Your task to perform on an android device: toggle pop-ups in chrome Image 0: 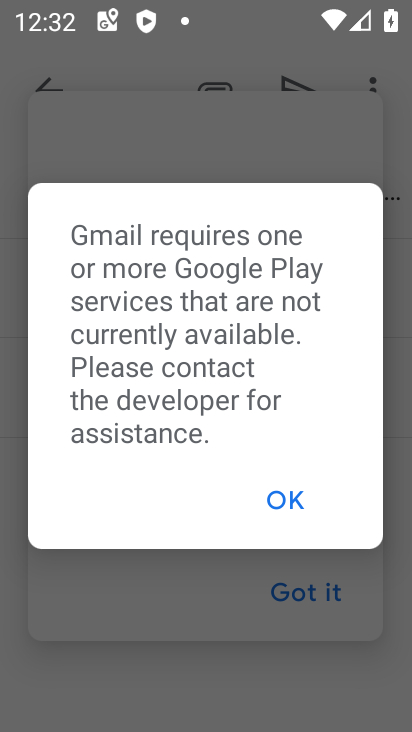
Step 0: press home button
Your task to perform on an android device: toggle pop-ups in chrome Image 1: 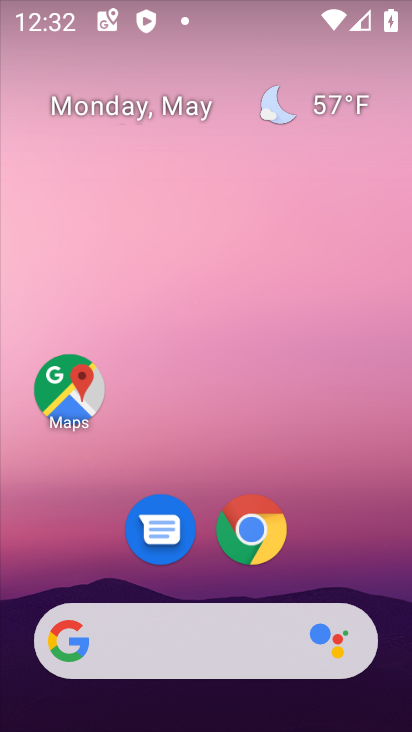
Step 1: click (253, 526)
Your task to perform on an android device: toggle pop-ups in chrome Image 2: 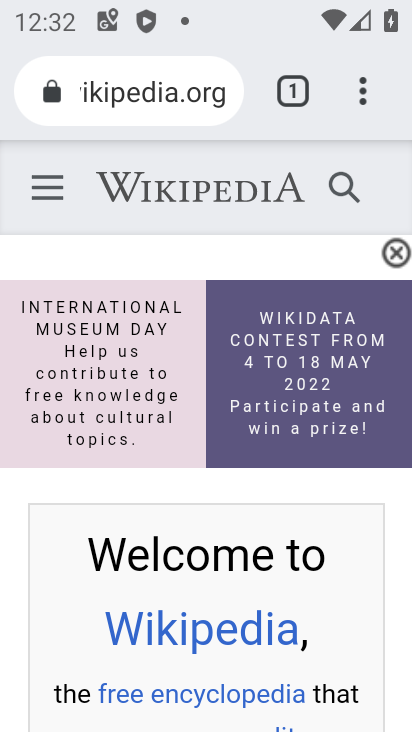
Step 2: click (365, 91)
Your task to perform on an android device: toggle pop-ups in chrome Image 3: 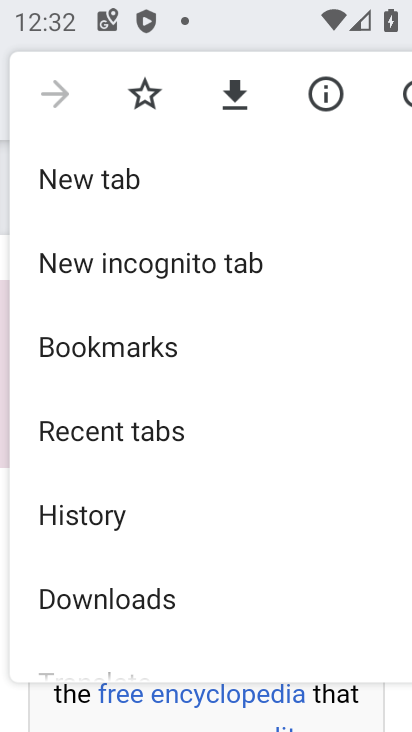
Step 3: drag from (178, 549) to (237, 442)
Your task to perform on an android device: toggle pop-ups in chrome Image 4: 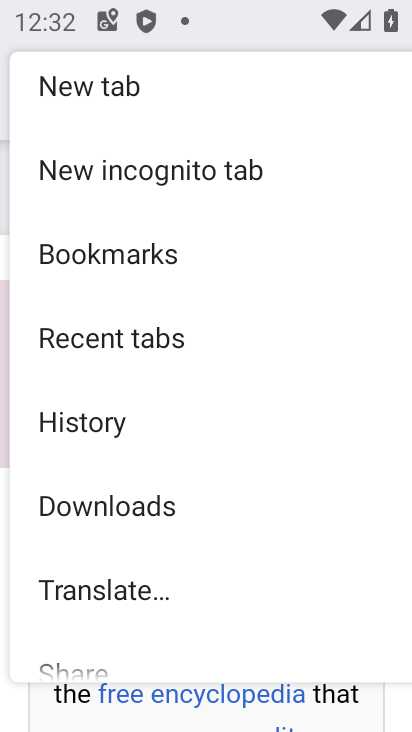
Step 4: drag from (222, 536) to (238, 422)
Your task to perform on an android device: toggle pop-ups in chrome Image 5: 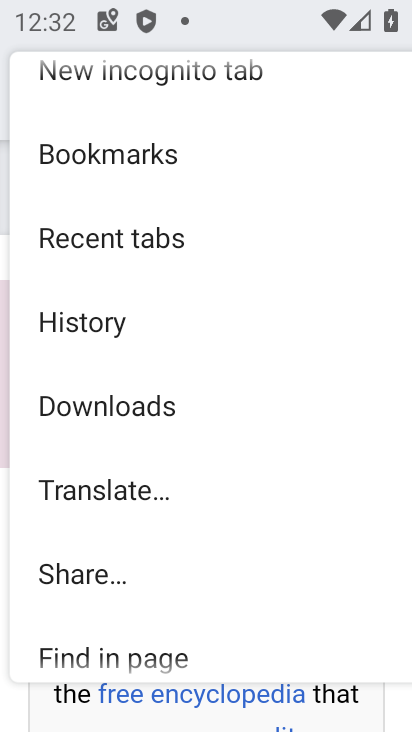
Step 5: drag from (197, 524) to (233, 426)
Your task to perform on an android device: toggle pop-ups in chrome Image 6: 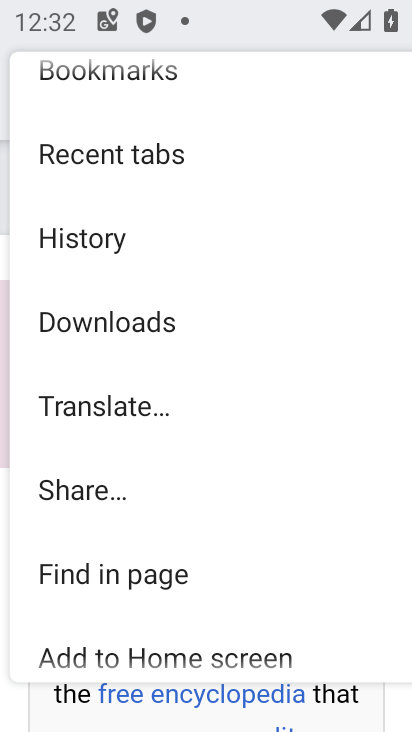
Step 6: drag from (198, 516) to (227, 382)
Your task to perform on an android device: toggle pop-ups in chrome Image 7: 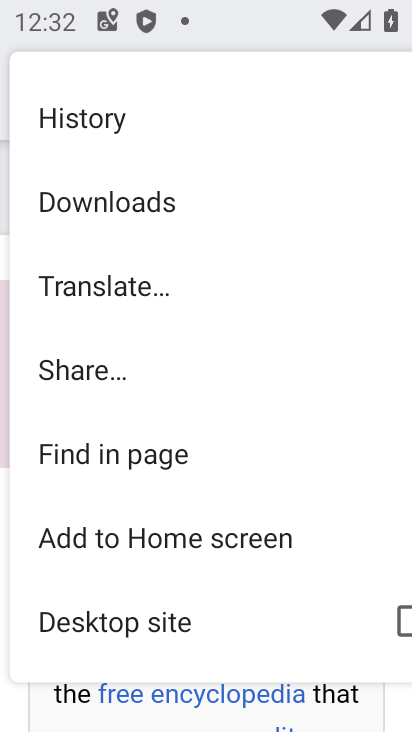
Step 7: drag from (166, 569) to (205, 435)
Your task to perform on an android device: toggle pop-ups in chrome Image 8: 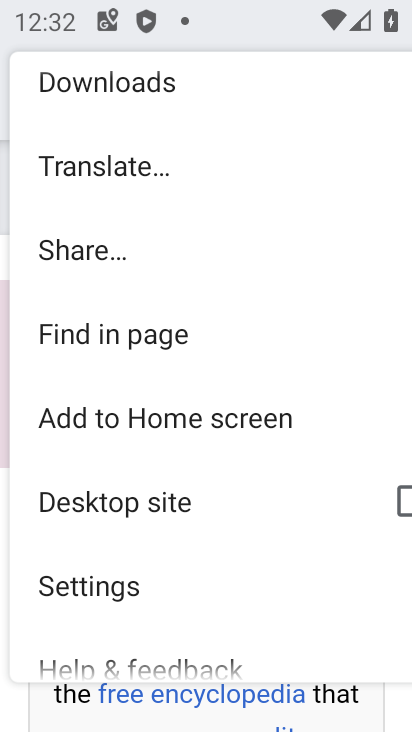
Step 8: drag from (152, 544) to (198, 475)
Your task to perform on an android device: toggle pop-ups in chrome Image 9: 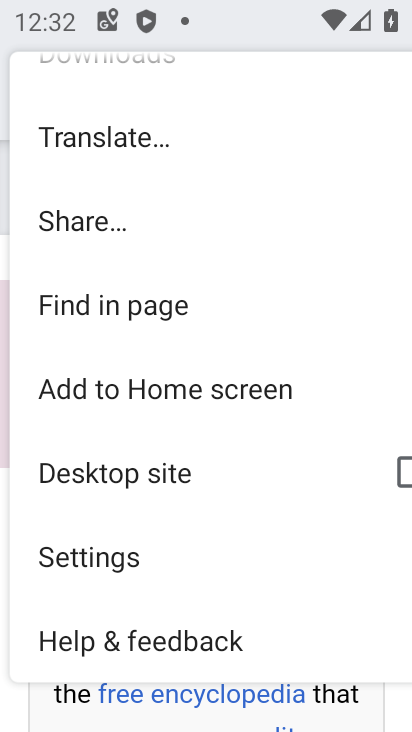
Step 9: click (100, 550)
Your task to perform on an android device: toggle pop-ups in chrome Image 10: 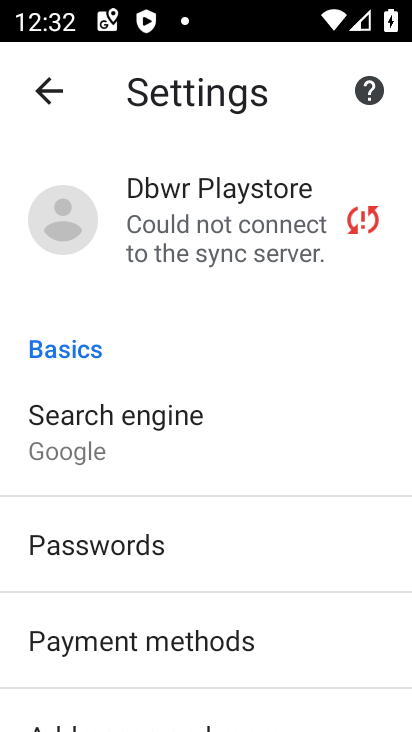
Step 10: drag from (104, 588) to (196, 477)
Your task to perform on an android device: toggle pop-ups in chrome Image 11: 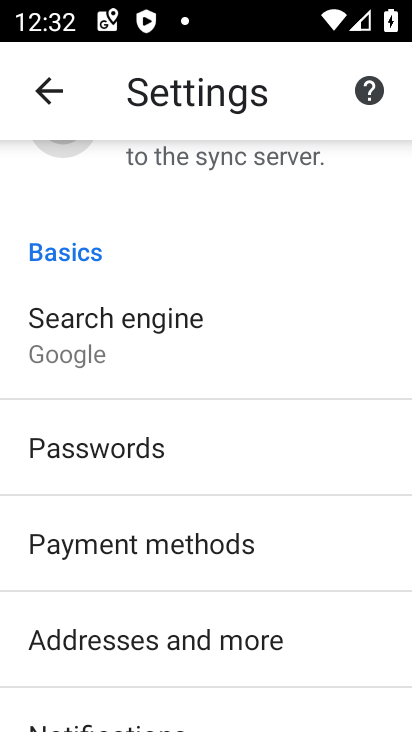
Step 11: drag from (154, 579) to (238, 465)
Your task to perform on an android device: toggle pop-ups in chrome Image 12: 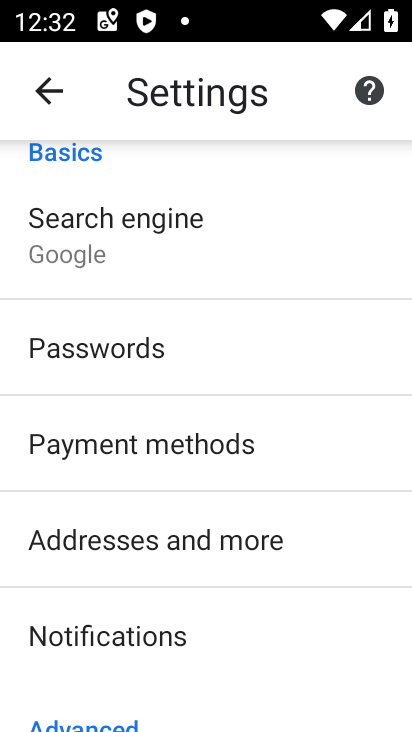
Step 12: drag from (196, 510) to (272, 403)
Your task to perform on an android device: toggle pop-ups in chrome Image 13: 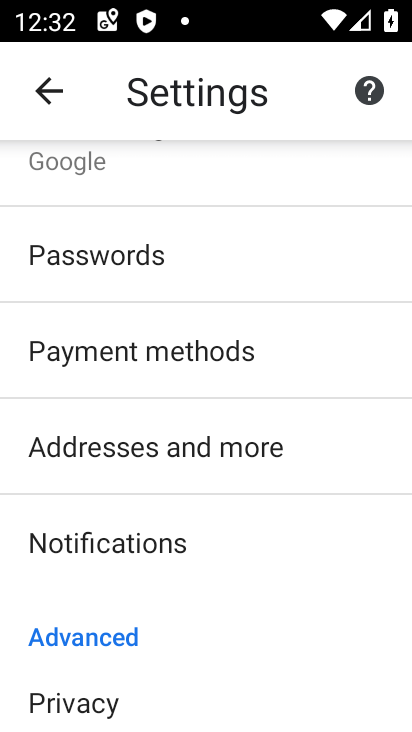
Step 13: drag from (142, 566) to (230, 459)
Your task to perform on an android device: toggle pop-ups in chrome Image 14: 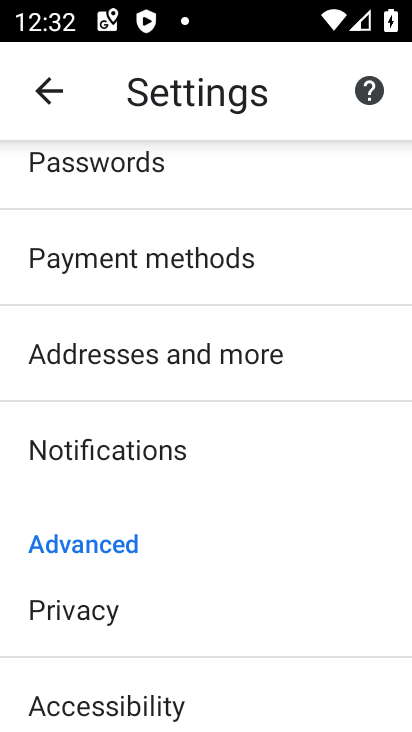
Step 14: drag from (192, 559) to (260, 446)
Your task to perform on an android device: toggle pop-ups in chrome Image 15: 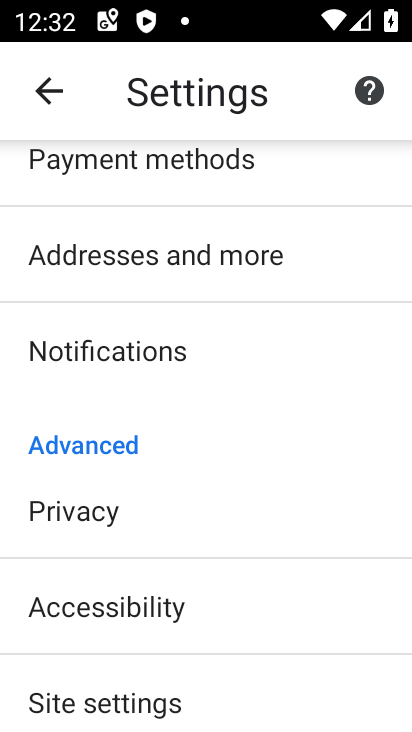
Step 15: drag from (208, 599) to (261, 513)
Your task to perform on an android device: toggle pop-ups in chrome Image 16: 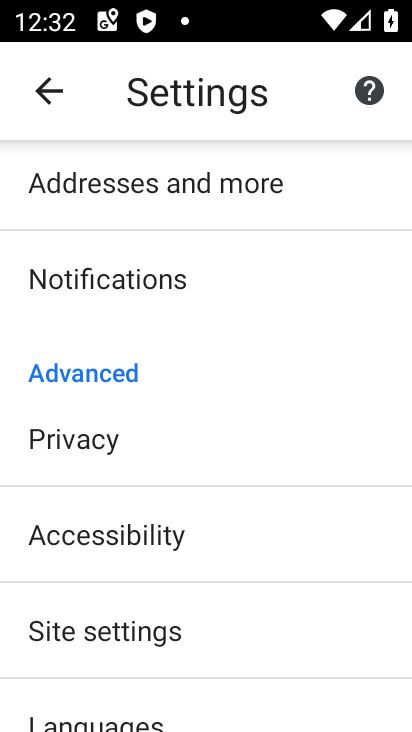
Step 16: drag from (197, 606) to (268, 470)
Your task to perform on an android device: toggle pop-ups in chrome Image 17: 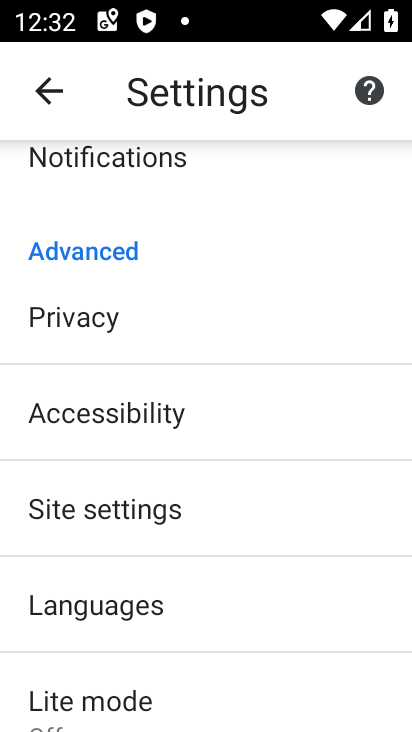
Step 17: drag from (189, 612) to (237, 530)
Your task to perform on an android device: toggle pop-ups in chrome Image 18: 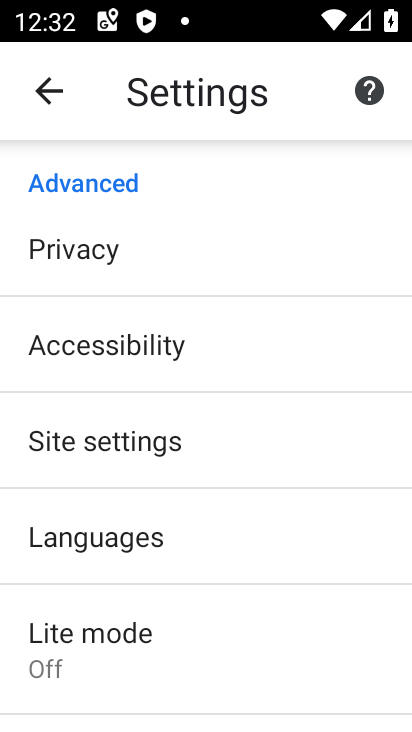
Step 18: drag from (174, 630) to (249, 529)
Your task to perform on an android device: toggle pop-ups in chrome Image 19: 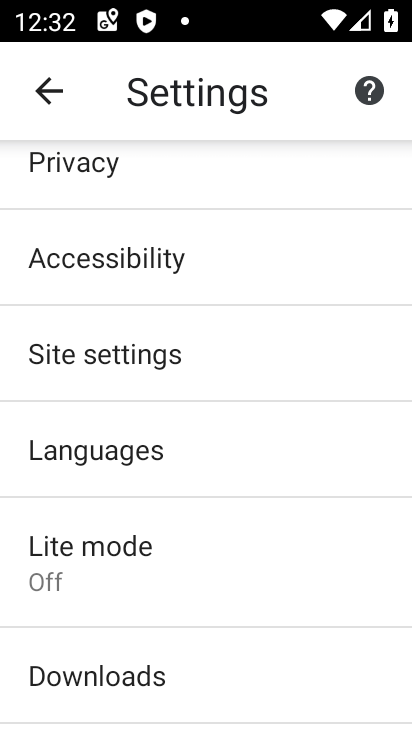
Step 19: click (142, 354)
Your task to perform on an android device: toggle pop-ups in chrome Image 20: 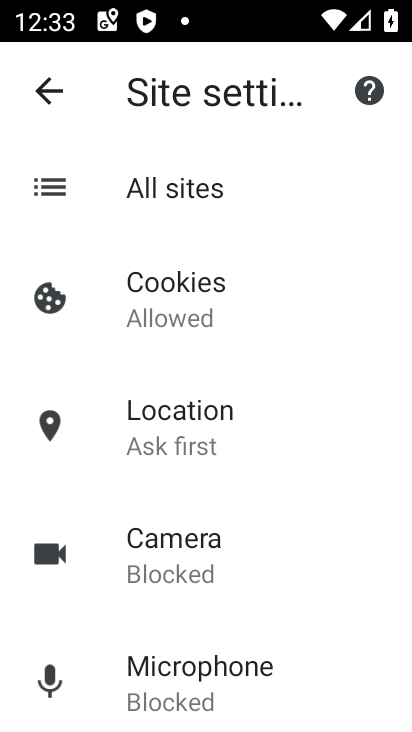
Step 20: drag from (146, 512) to (237, 411)
Your task to perform on an android device: toggle pop-ups in chrome Image 21: 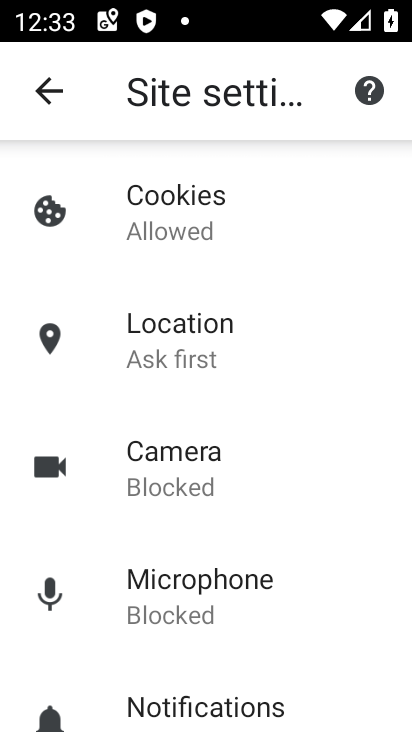
Step 21: drag from (213, 497) to (265, 388)
Your task to perform on an android device: toggle pop-ups in chrome Image 22: 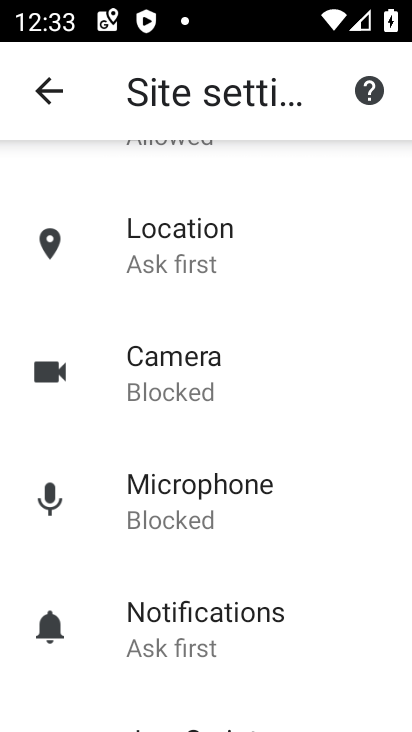
Step 22: drag from (217, 566) to (274, 450)
Your task to perform on an android device: toggle pop-ups in chrome Image 23: 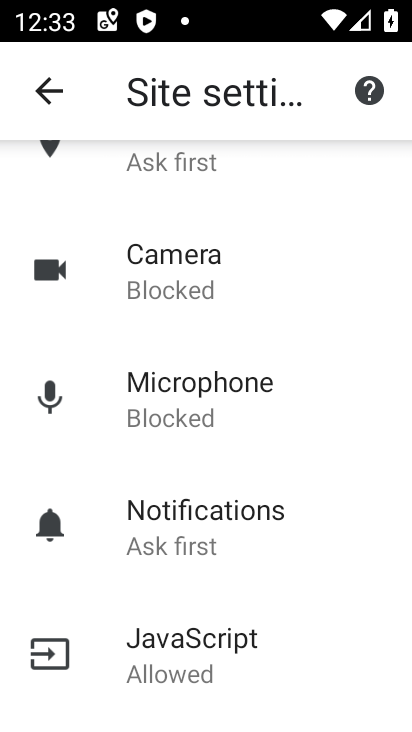
Step 23: drag from (234, 687) to (308, 529)
Your task to perform on an android device: toggle pop-ups in chrome Image 24: 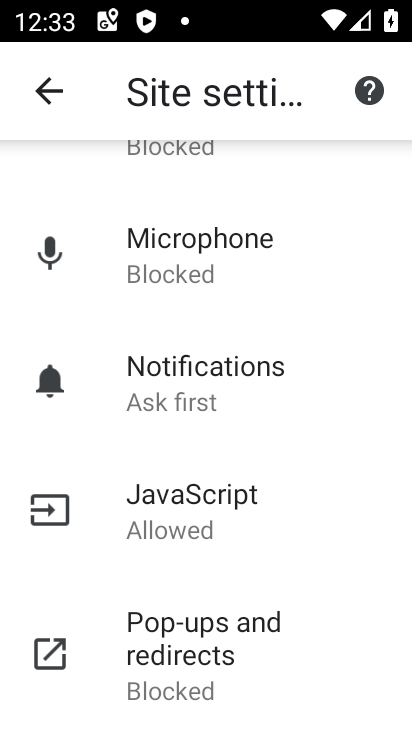
Step 24: click (231, 626)
Your task to perform on an android device: toggle pop-ups in chrome Image 25: 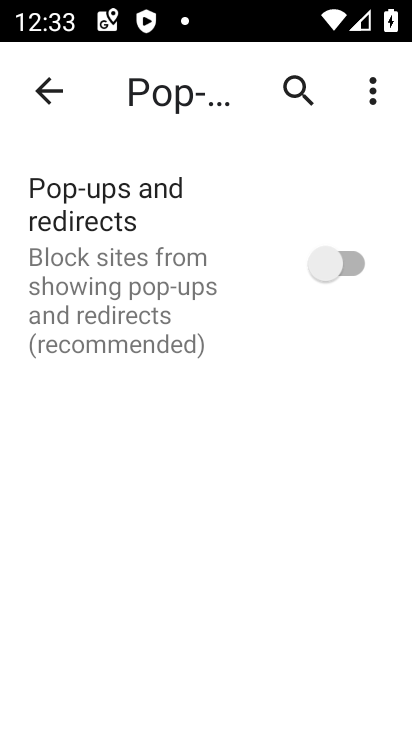
Step 25: click (324, 267)
Your task to perform on an android device: toggle pop-ups in chrome Image 26: 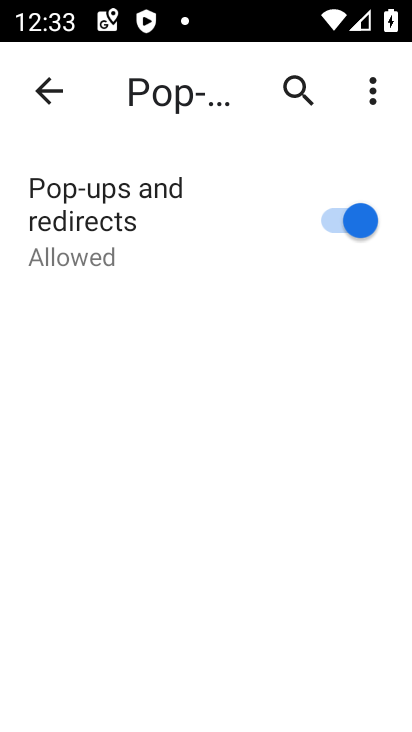
Step 26: task complete